Your task to perform on an android device: open app "Lyft - Rideshare, Bikes, Scooters & Transit" (install if not already installed) Image 0: 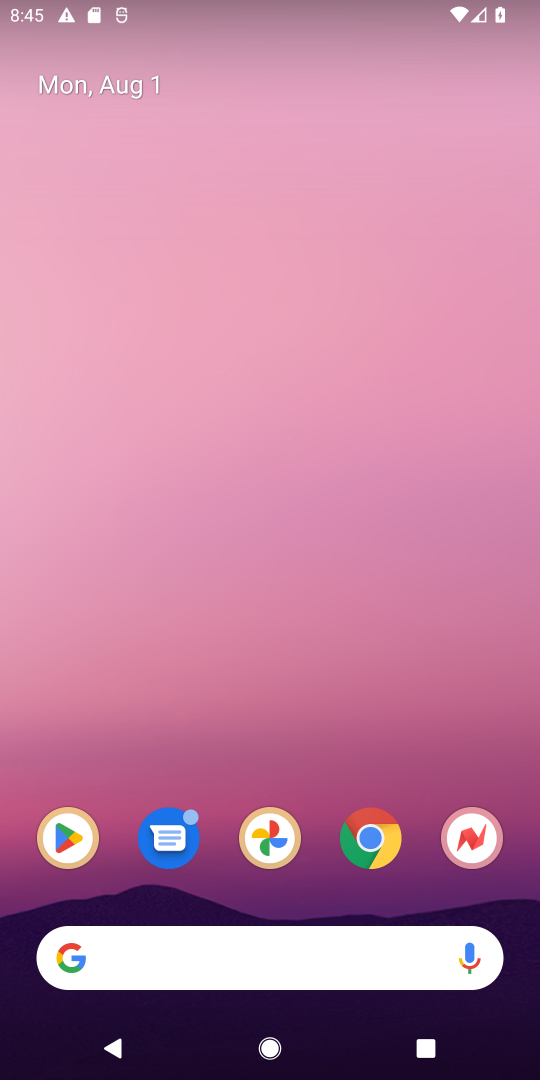
Step 0: drag from (414, 971) to (394, 0)
Your task to perform on an android device: open app "Lyft - Rideshare, Bikes, Scooters & Transit" (install if not already installed) Image 1: 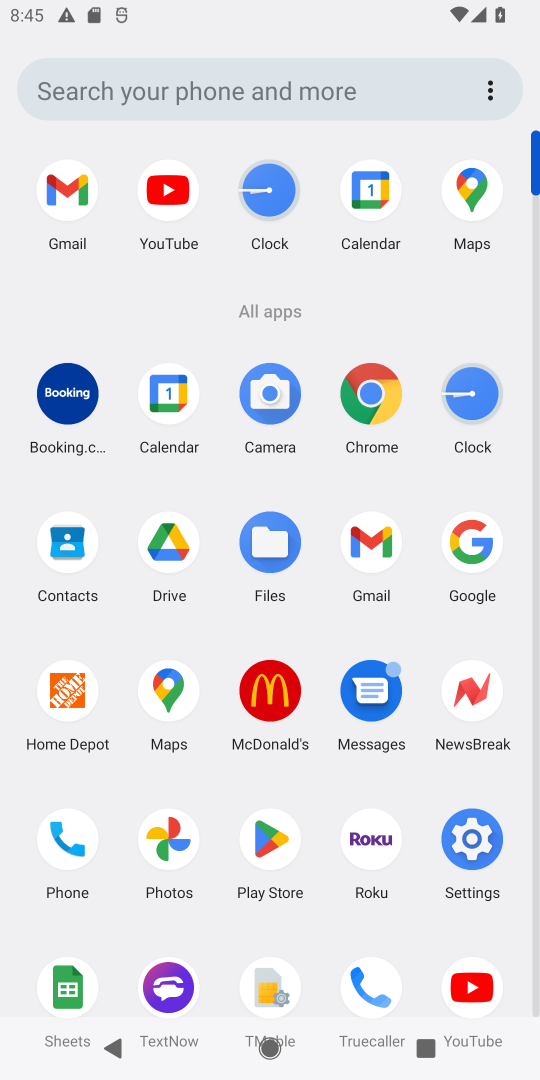
Step 1: click (260, 832)
Your task to perform on an android device: open app "Lyft - Rideshare, Bikes, Scooters & Transit" (install if not already installed) Image 2: 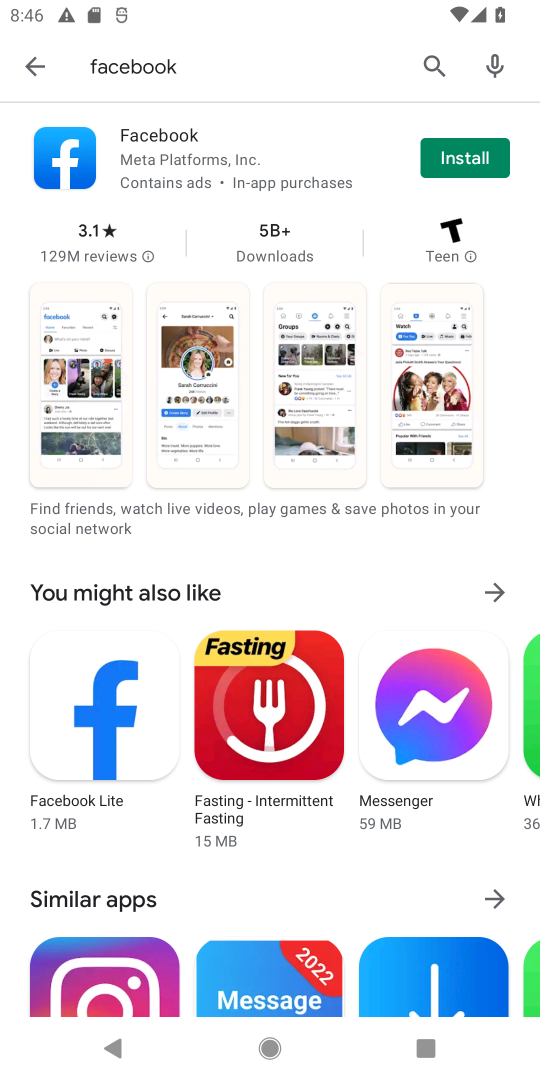
Step 2: click (426, 58)
Your task to perform on an android device: open app "Lyft - Rideshare, Bikes, Scooters & Transit" (install if not already installed) Image 3: 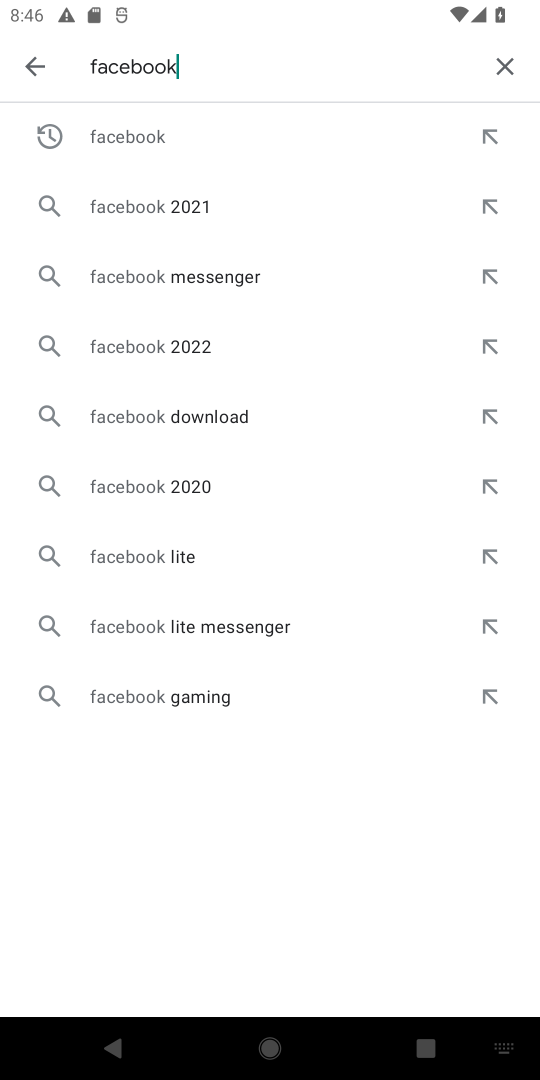
Step 3: click (506, 57)
Your task to perform on an android device: open app "Lyft - Rideshare, Bikes, Scooters & Transit" (install if not already installed) Image 4: 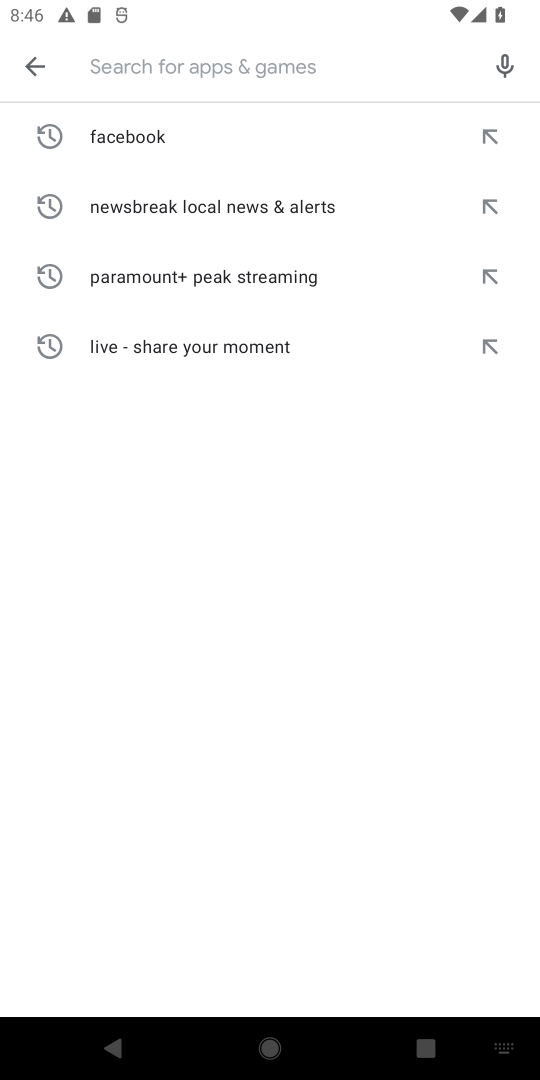
Step 4: type "lyft - rideshare, bikes, scooters & Transit"
Your task to perform on an android device: open app "Lyft - Rideshare, Bikes, Scooters & Transit" (install if not already installed) Image 5: 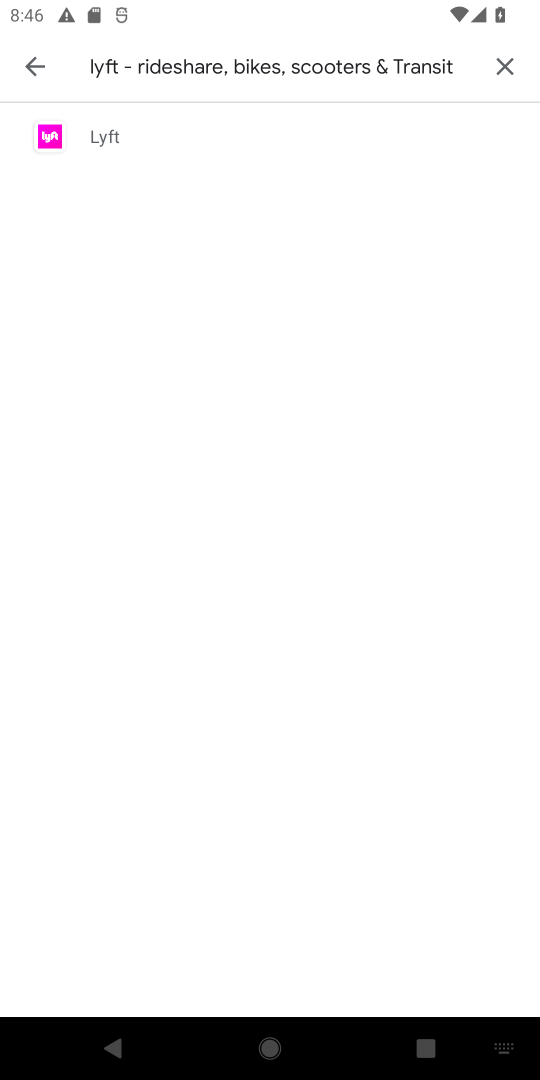
Step 5: click (107, 128)
Your task to perform on an android device: open app "Lyft - Rideshare, Bikes, Scooters & Transit" (install if not already installed) Image 6: 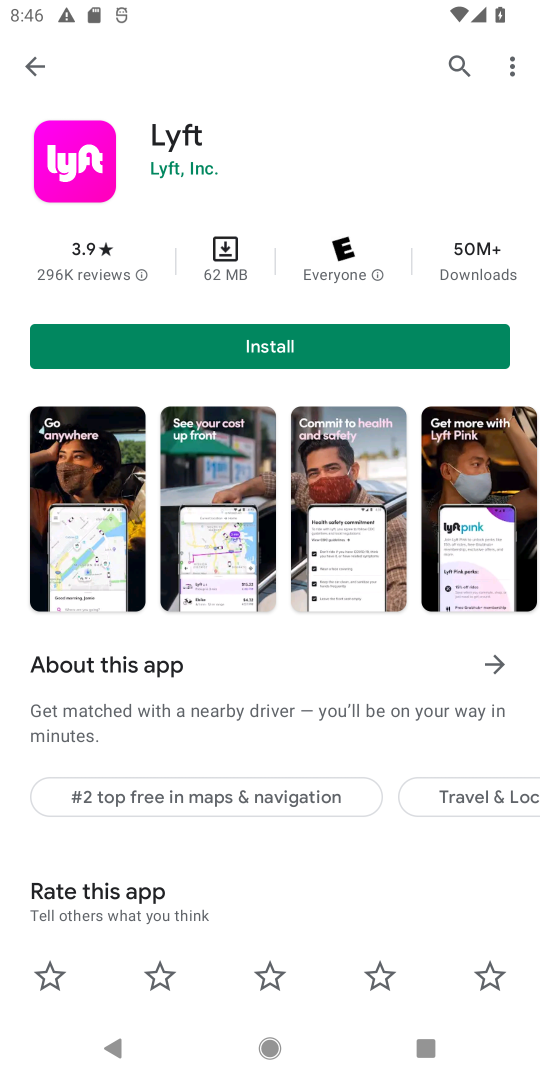
Step 6: click (381, 351)
Your task to perform on an android device: open app "Lyft - Rideshare, Bikes, Scooters & Transit" (install if not already installed) Image 7: 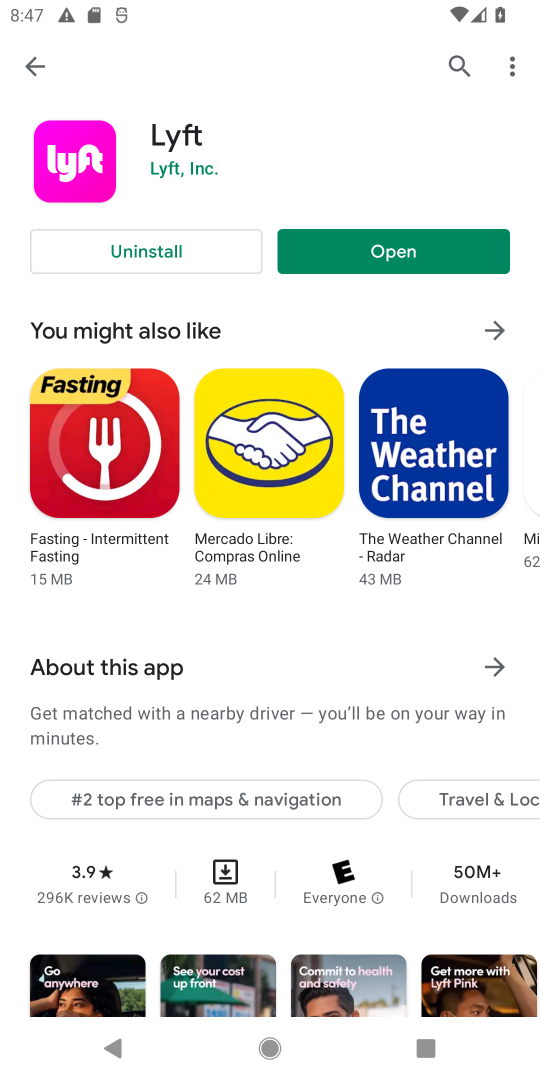
Step 7: click (440, 244)
Your task to perform on an android device: open app "Lyft - Rideshare, Bikes, Scooters & Transit" (install if not already installed) Image 8: 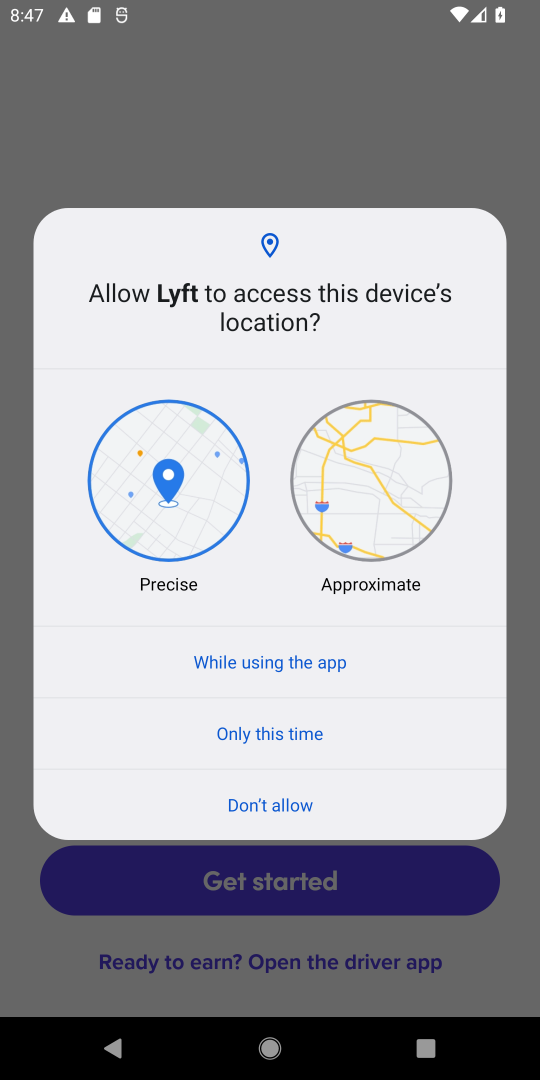
Step 8: task complete